Your task to perform on an android device: open wifi settings Image 0: 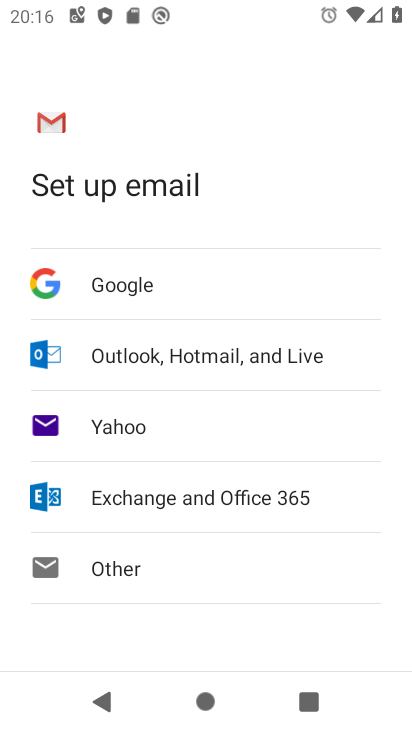
Step 0: press home button
Your task to perform on an android device: open wifi settings Image 1: 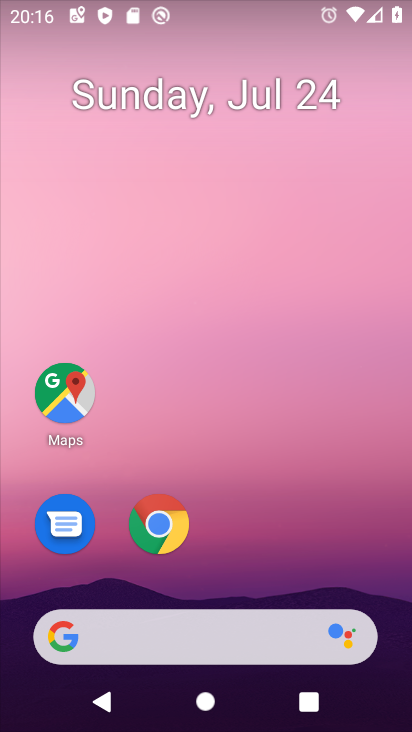
Step 1: drag from (275, 561) to (316, 2)
Your task to perform on an android device: open wifi settings Image 2: 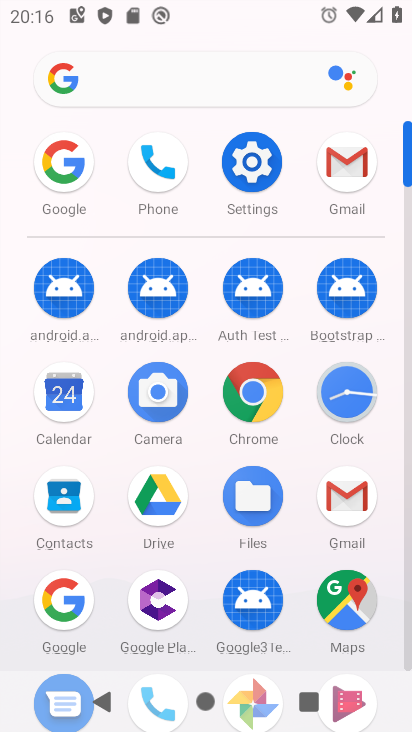
Step 2: click (237, 154)
Your task to perform on an android device: open wifi settings Image 3: 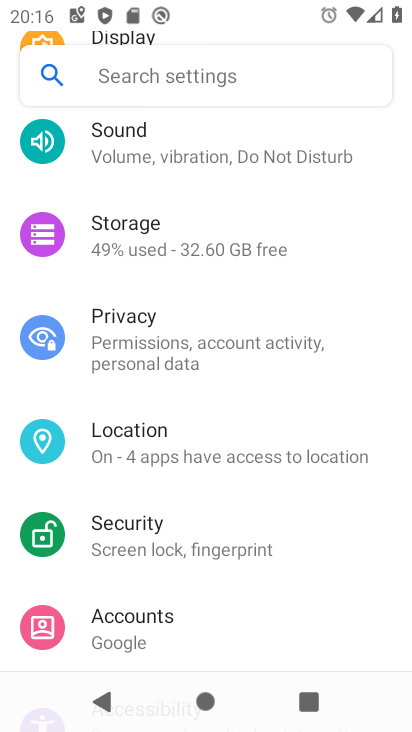
Step 3: drag from (225, 210) to (262, 604)
Your task to perform on an android device: open wifi settings Image 4: 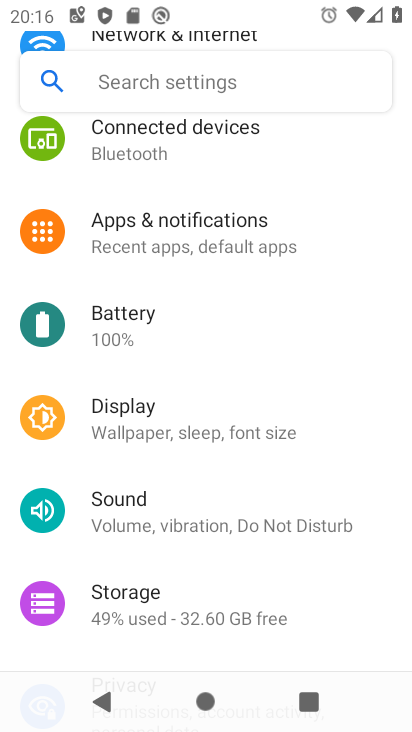
Step 4: drag from (277, 314) to (270, 610)
Your task to perform on an android device: open wifi settings Image 5: 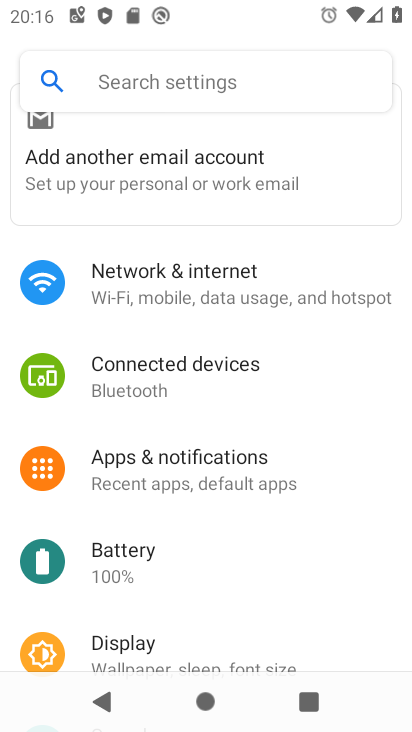
Step 5: click (259, 289)
Your task to perform on an android device: open wifi settings Image 6: 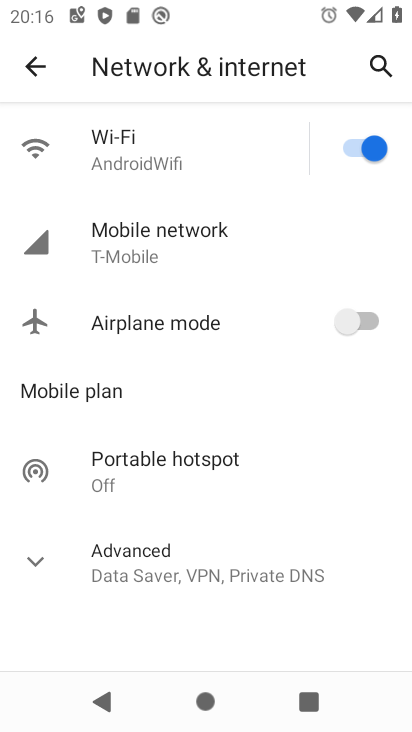
Step 6: click (150, 148)
Your task to perform on an android device: open wifi settings Image 7: 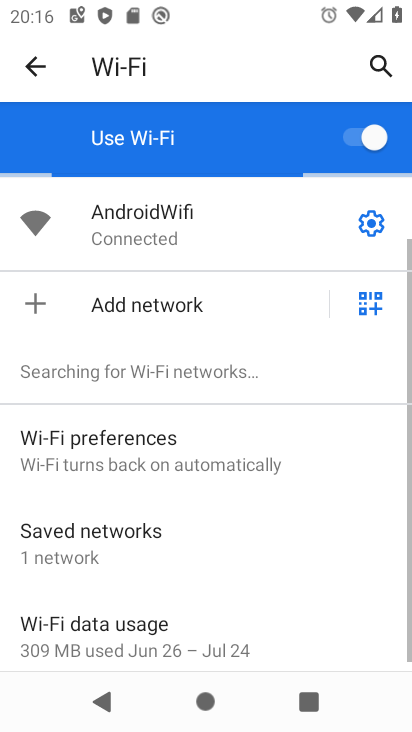
Step 7: task complete